Your task to perform on an android device: create a new album in the google photos Image 0: 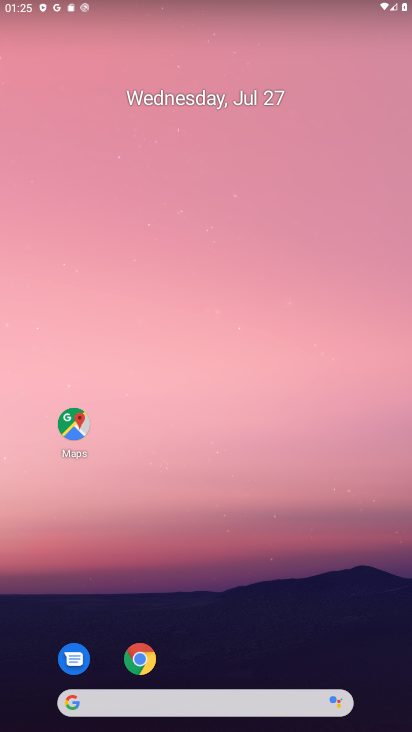
Step 0: drag from (261, 590) to (173, 173)
Your task to perform on an android device: create a new album in the google photos Image 1: 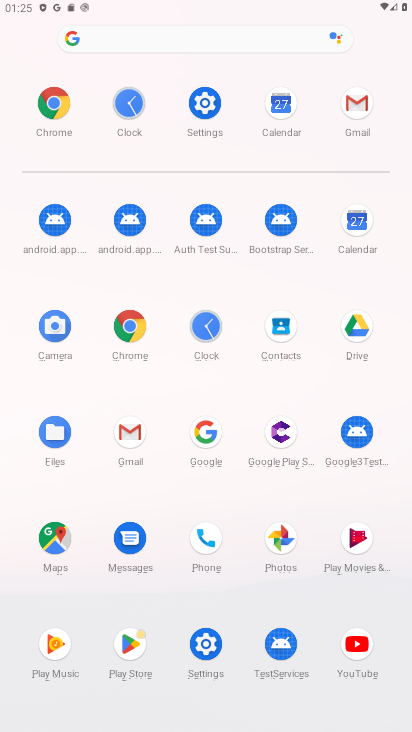
Step 1: click (281, 535)
Your task to perform on an android device: create a new album in the google photos Image 2: 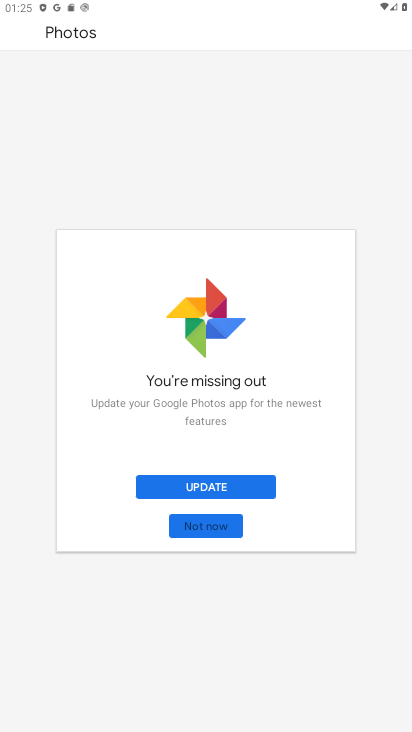
Step 2: click (213, 527)
Your task to perform on an android device: create a new album in the google photos Image 3: 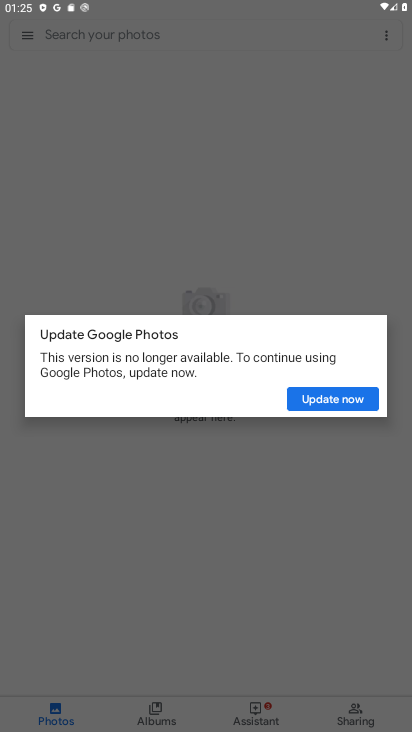
Step 3: click (347, 406)
Your task to perform on an android device: create a new album in the google photos Image 4: 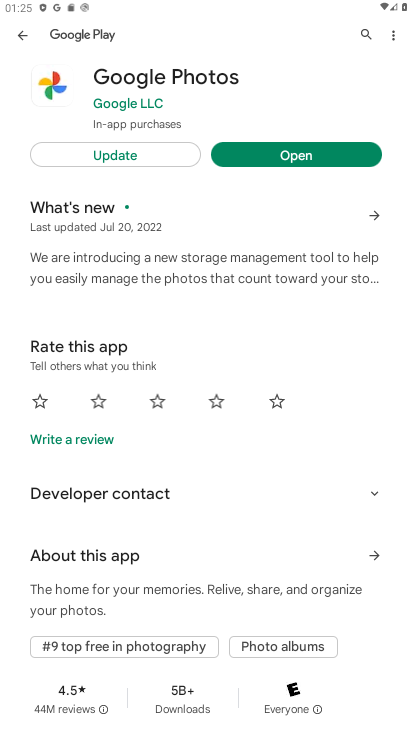
Step 4: click (326, 156)
Your task to perform on an android device: create a new album in the google photos Image 5: 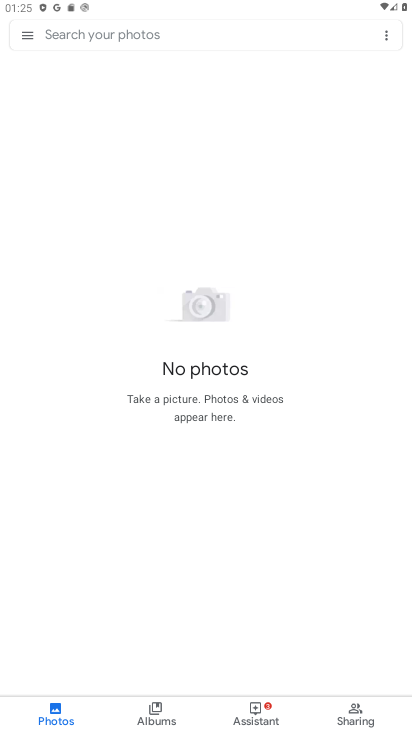
Step 5: task complete